Your task to perform on an android device: Find coffee shops on Maps Image 0: 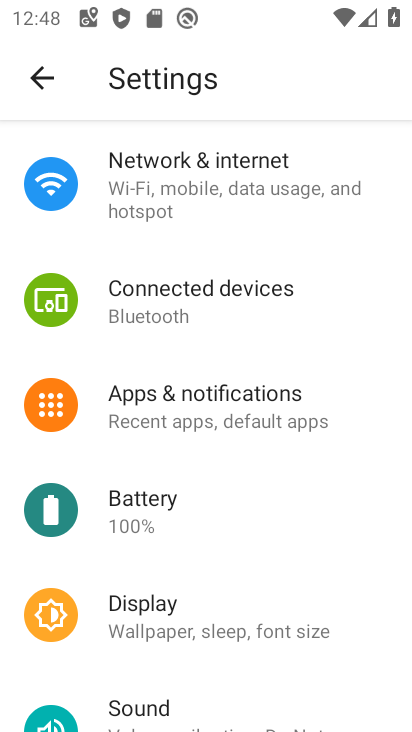
Step 0: press home button
Your task to perform on an android device: Find coffee shops on Maps Image 1: 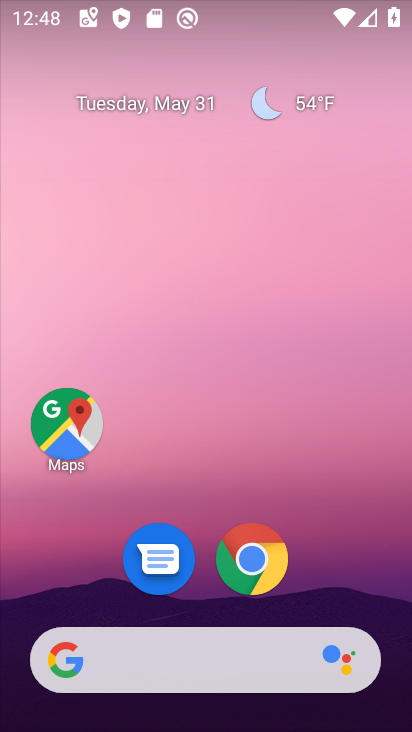
Step 1: click (98, 419)
Your task to perform on an android device: Find coffee shops on Maps Image 2: 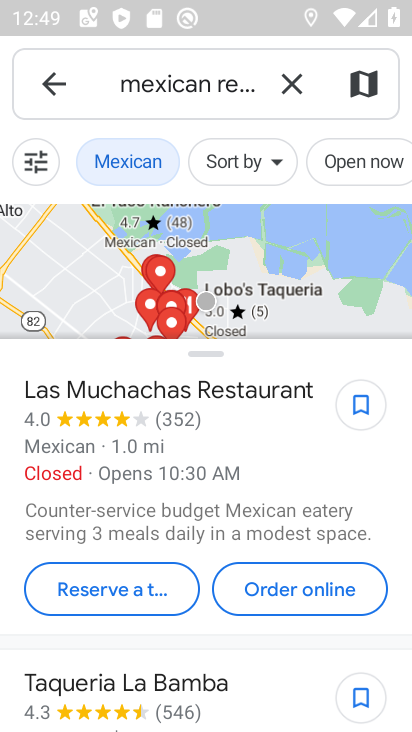
Step 2: click (302, 88)
Your task to perform on an android device: Find coffee shops on Maps Image 3: 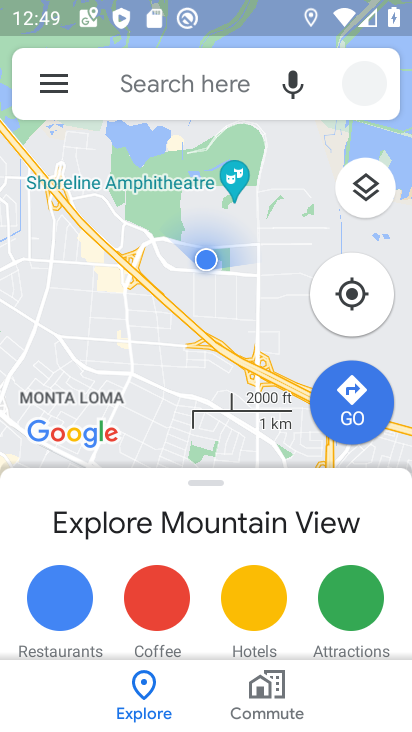
Step 3: click (189, 76)
Your task to perform on an android device: Find coffee shops on Maps Image 4: 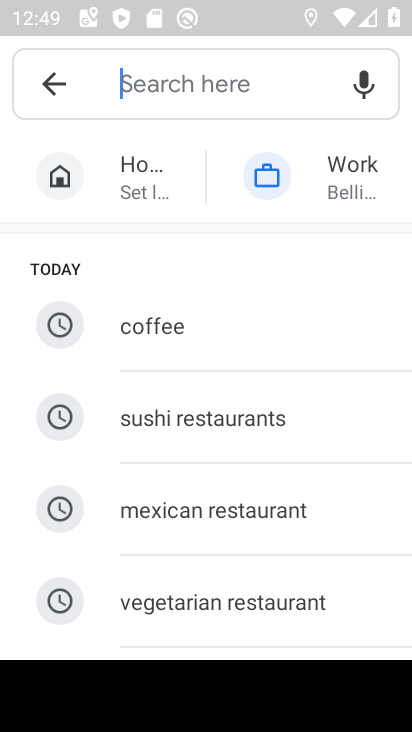
Step 4: type "coffee shops"
Your task to perform on an android device: Find coffee shops on Maps Image 5: 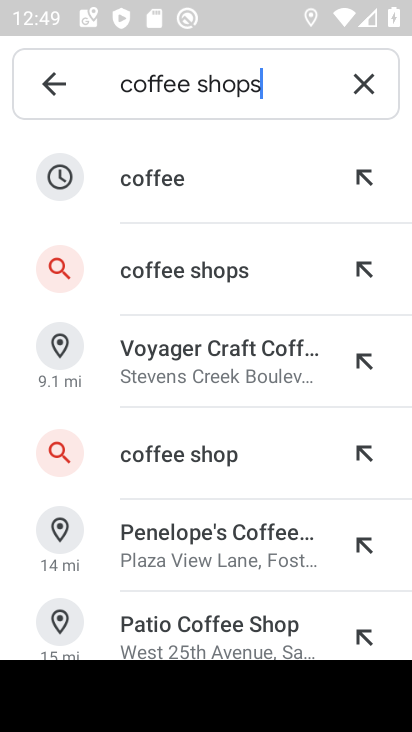
Step 5: click (183, 268)
Your task to perform on an android device: Find coffee shops on Maps Image 6: 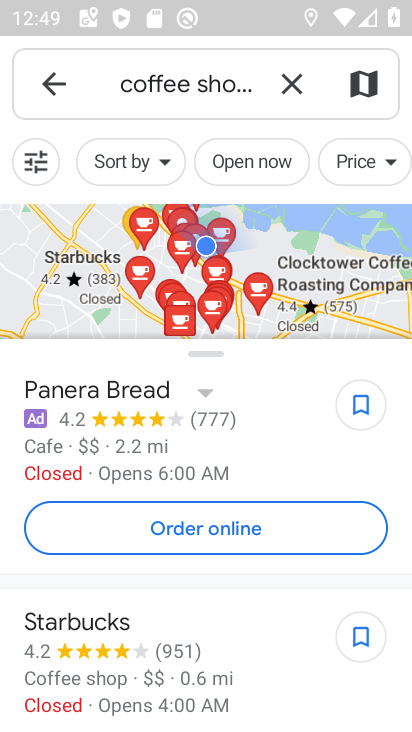
Step 6: task complete